Your task to perform on an android device: check data usage Image 0: 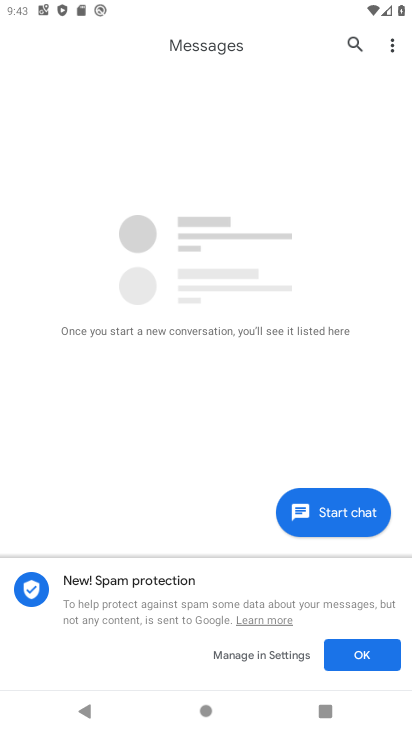
Step 0: press home button
Your task to perform on an android device: check data usage Image 1: 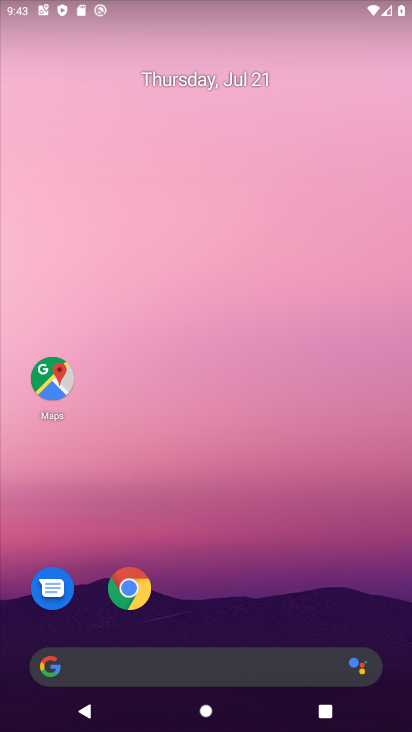
Step 1: drag from (396, 674) to (316, 52)
Your task to perform on an android device: check data usage Image 2: 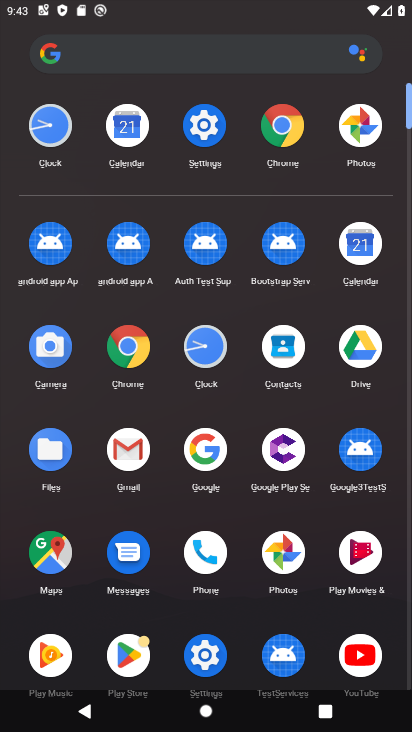
Step 2: click (200, 131)
Your task to perform on an android device: check data usage Image 3: 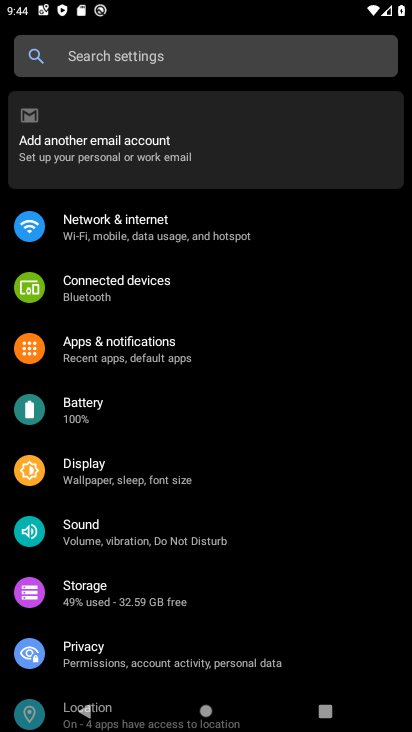
Step 3: click (108, 225)
Your task to perform on an android device: check data usage Image 4: 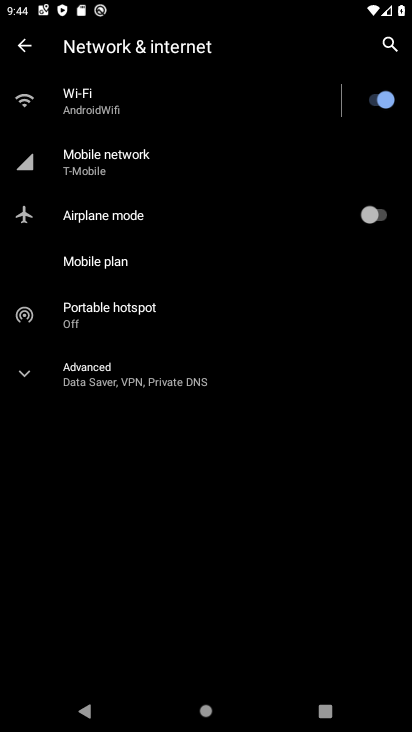
Step 4: click (87, 158)
Your task to perform on an android device: check data usage Image 5: 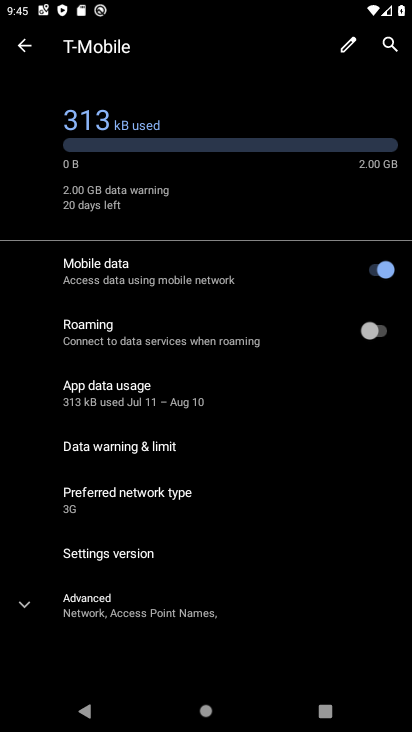
Step 5: task complete